Your task to perform on an android device: make emails show in primary in the gmail app Image 0: 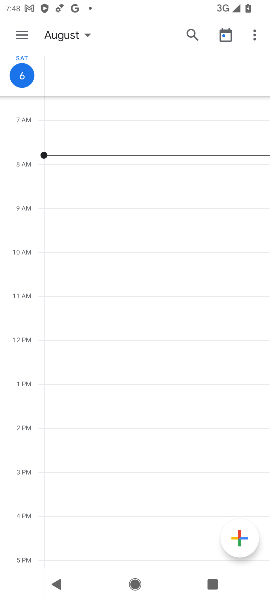
Step 0: press home button
Your task to perform on an android device: make emails show in primary in the gmail app Image 1: 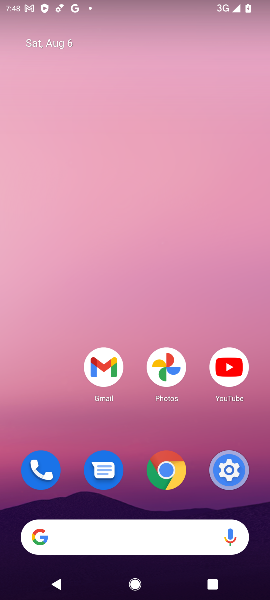
Step 1: drag from (147, 470) to (149, 98)
Your task to perform on an android device: make emails show in primary in the gmail app Image 2: 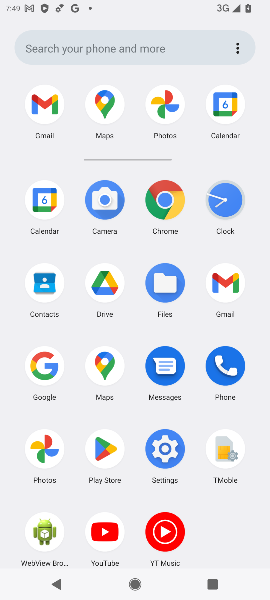
Step 2: click (227, 287)
Your task to perform on an android device: make emails show in primary in the gmail app Image 3: 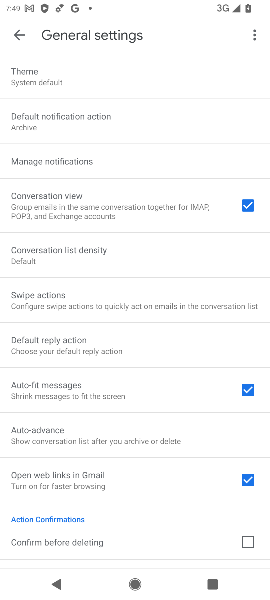
Step 3: click (20, 48)
Your task to perform on an android device: make emails show in primary in the gmail app Image 4: 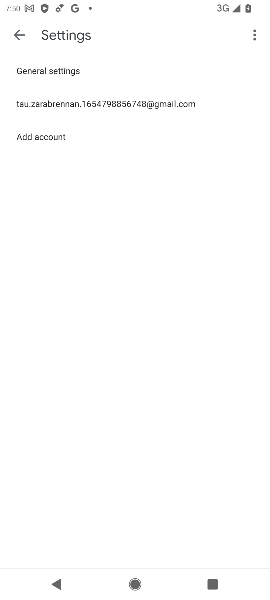
Step 4: task complete